Your task to perform on an android device: See recent photos Image 0: 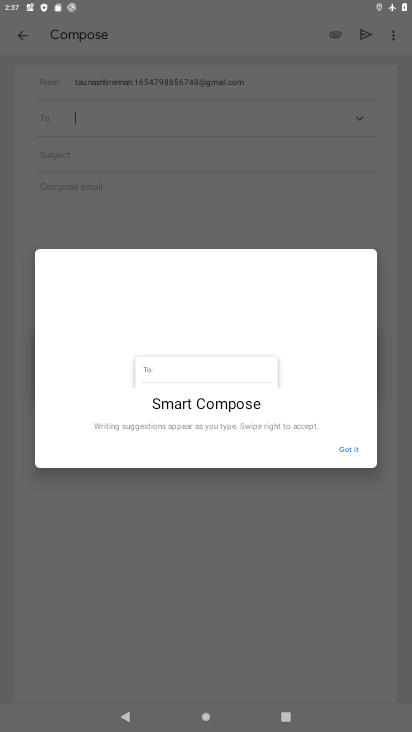
Step 0: press home button
Your task to perform on an android device: See recent photos Image 1: 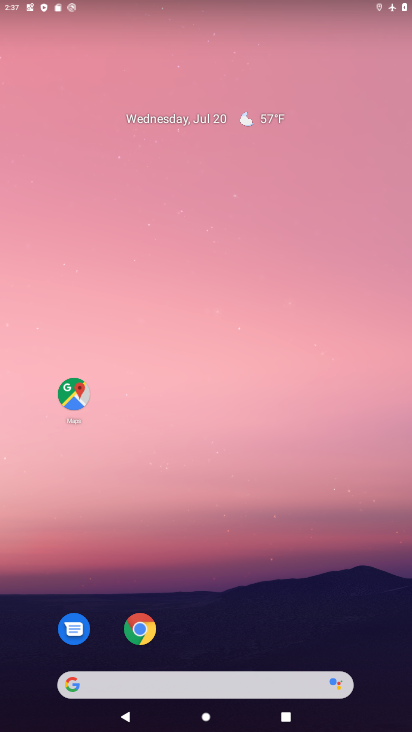
Step 1: drag from (219, 633) to (165, 235)
Your task to perform on an android device: See recent photos Image 2: 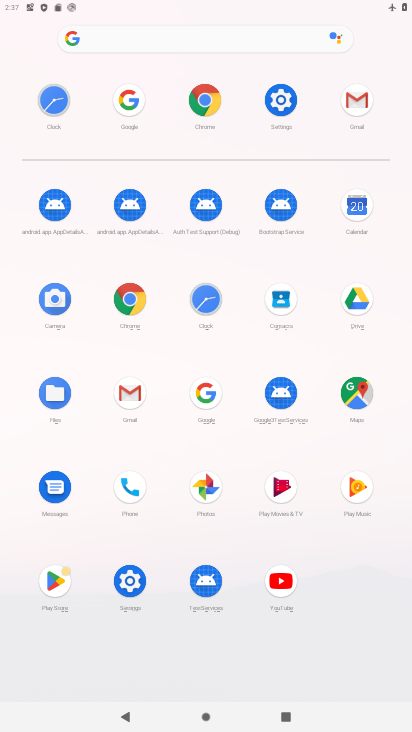
Step 2: click (201, 501)
Your task to perform on an android device: See recent photos Image 3: 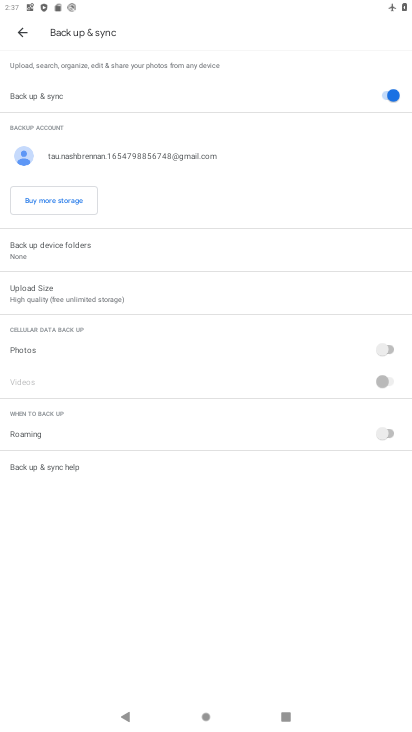
Step 3: click (20, 29)
Your task to perform on an android device: See recent photos Image 4: 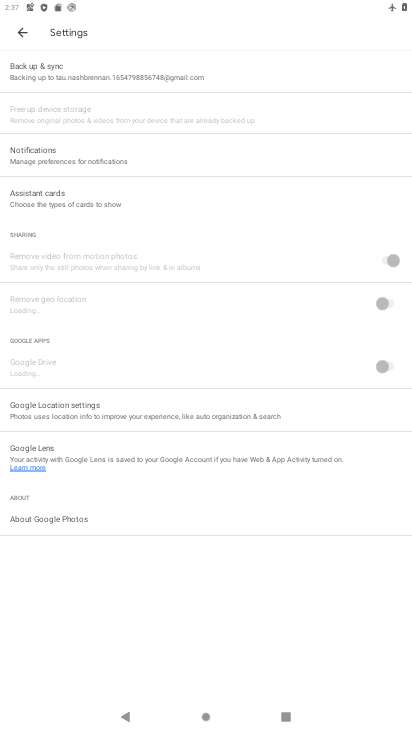
Step 4: click (20, 29)
Your task to perform on an android device: See recent photos Image 5: 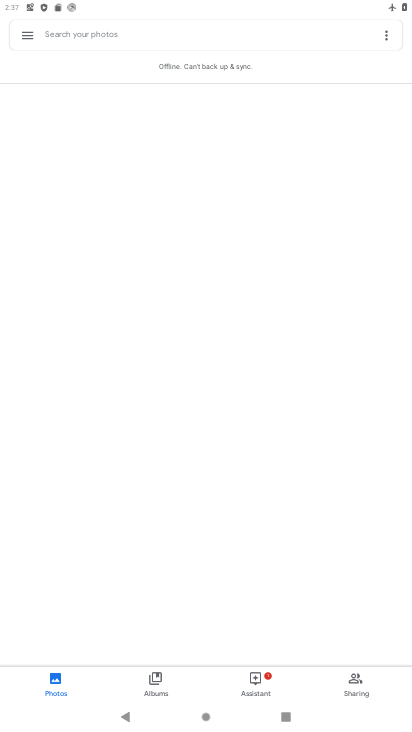
Step 5: click (61, 676)
Your task to perform on an android device: See recent photos Image 6: 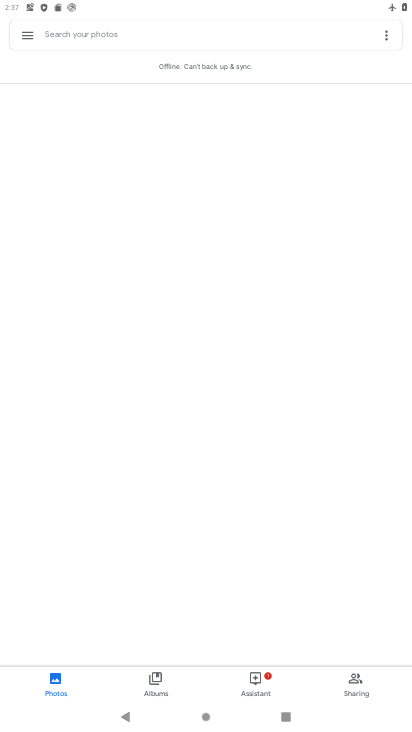
Step 6: task complete